Your task to perform on an android device: Go to Reddit.com Image 0: 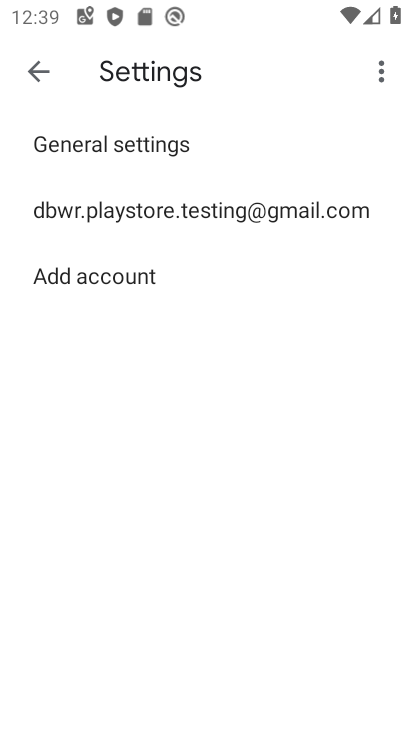
Step 0: press home button
Your task to perform on an android device: Go to Reddit.com Image 1: 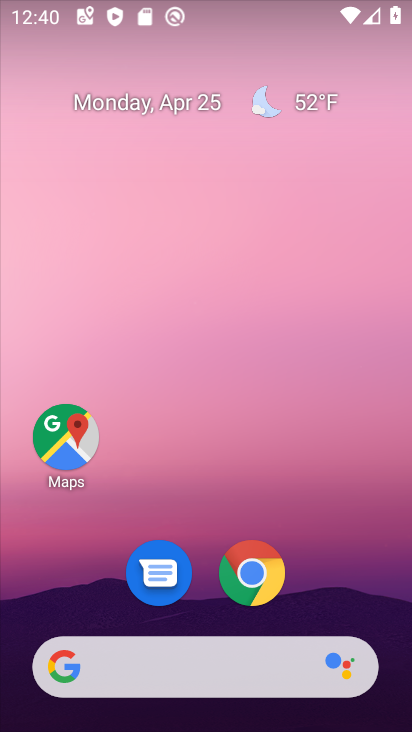
Step 1: click (252, 581)
Your task to perform on an android device: Go to Reddit.com Image 2: 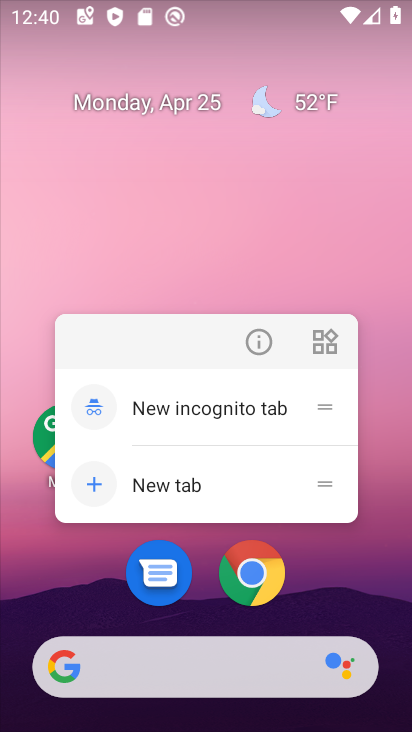
Step 2: click (275, 596)
Your task to perform on an android device: Go to Reddit.com Image 3: 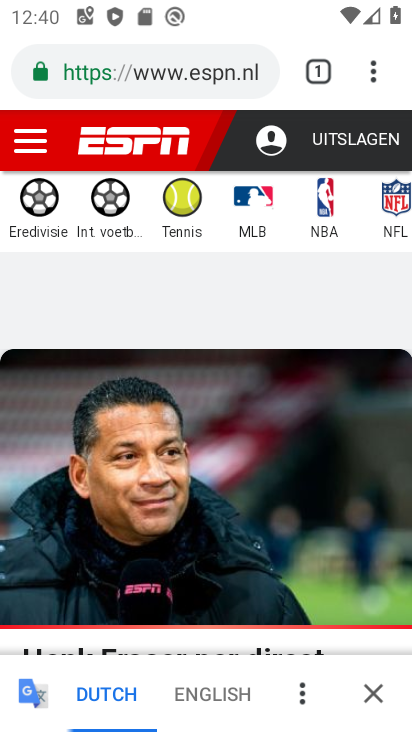
Step 3: click (331, 70)
Your task to perform on an android device: Go to Reddit.com Image 4: 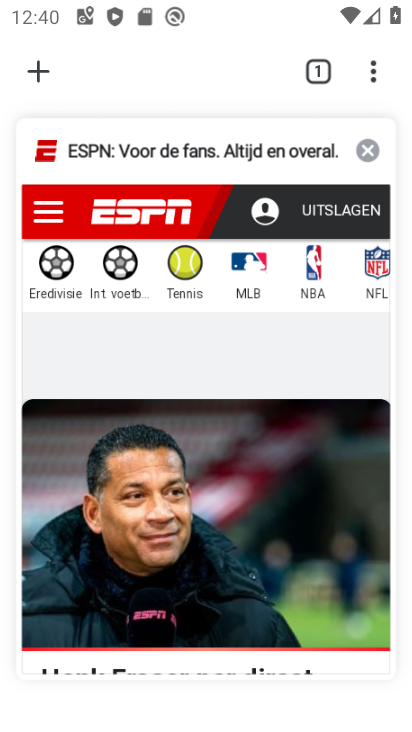
Step 4: click (358, 150)
Your task to perform on an android device: Go to Reddit.com Image 5: 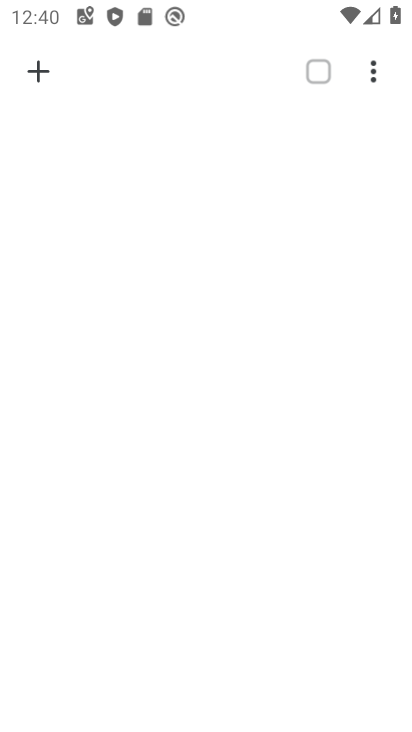
Step 5: click (42, 76)
Your task to perform on an android device: Go to Reddit.com Image 6: 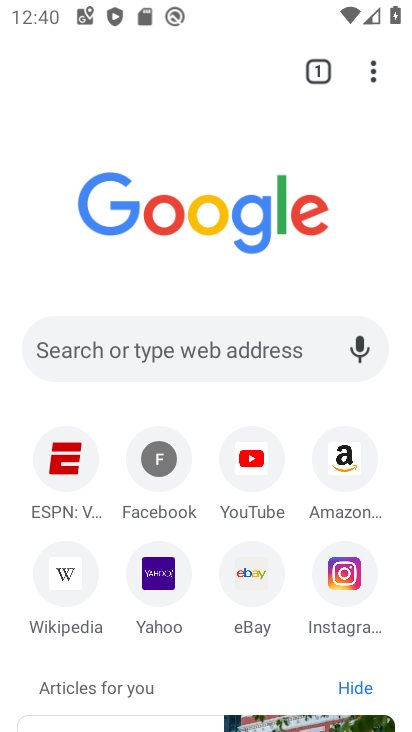
Step 6: click (191, 338)
Your task to perform on an android device: Go to Reddit.com Image 7: 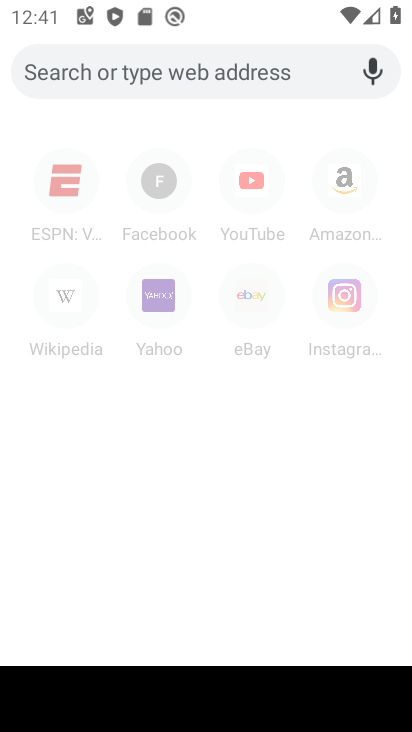
Step 7: type "reddit.com"
Your task to perform on an android device: Go to Reddit.com Image 8: 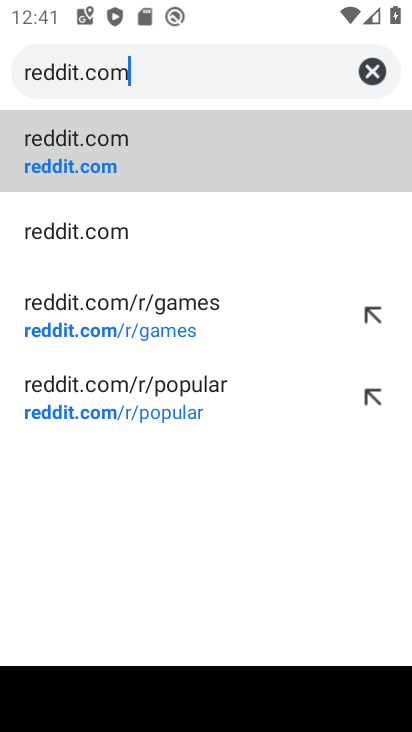
Step 8: click (151, 163)
Your task to perform on an android device: Go to Reddit.com Image 9: 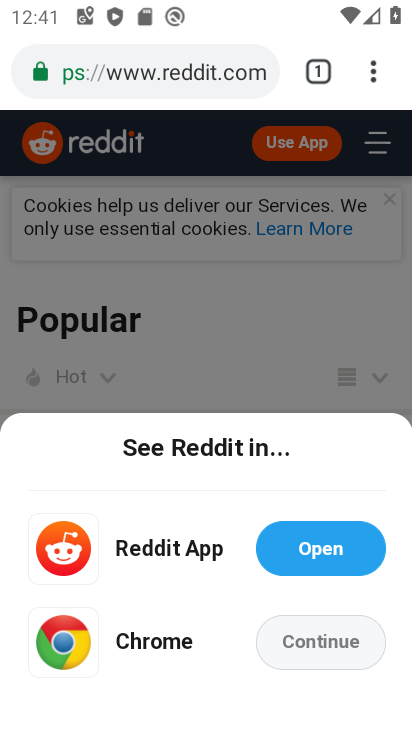
Step 9: click (330, 632)
Your task to perform on an android device: Go to Reddit.com Image 10: 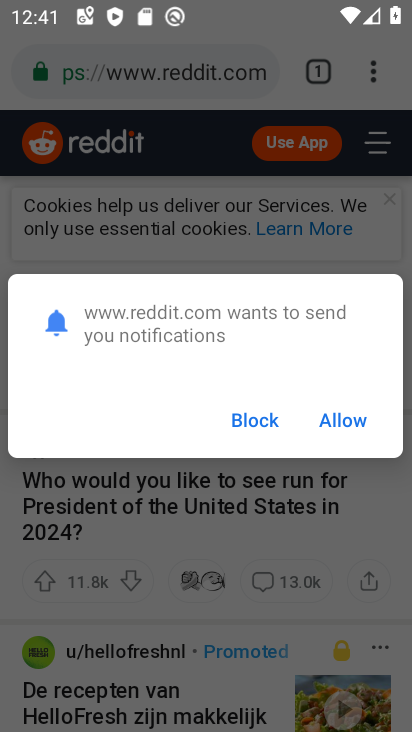
Step 10: click (328, 430)
Your task to perform on an android device: Go to Reddit.com Image 11: 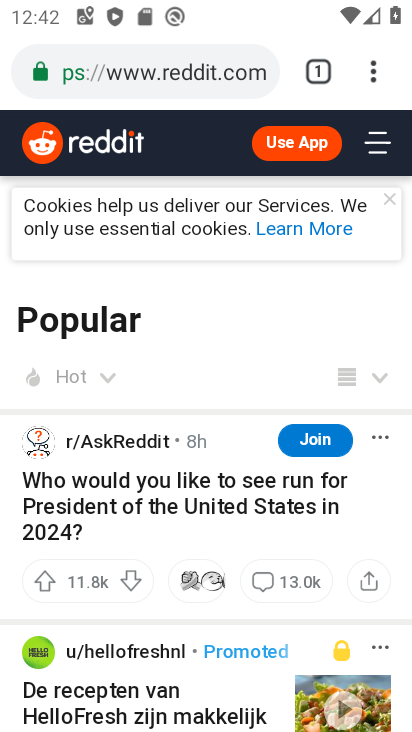
Step 11: task complete